Your task to perform on an android device: find snoozed emails in the gmail app Image 0: 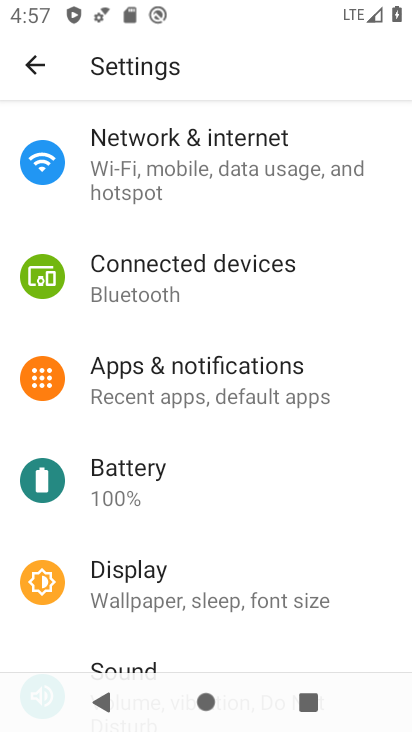
Step 0: press home button
Your task to perform on an android device: find snoozed emails in the gmail app Image 1: 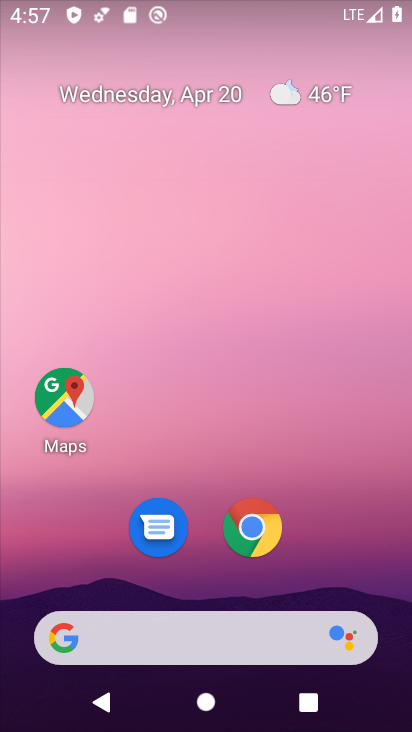
Step 1: drag from (216, 189) to (213, 94)
Your task to perform on an android device: find snoozed emails in the gmail app Image 2: 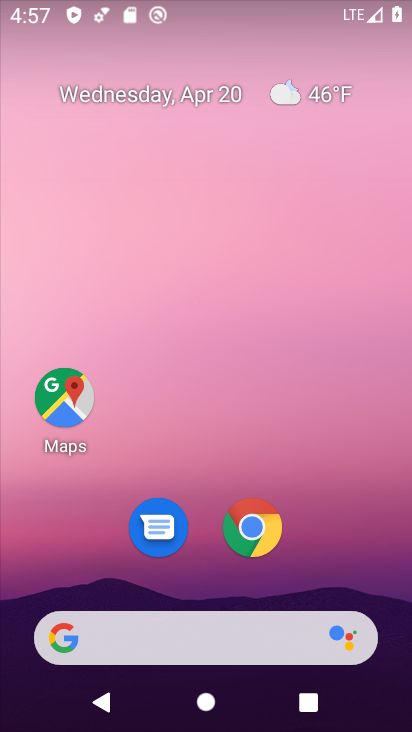
Step 2: drag from (214, 574) to (209, 57)
Your task to perform on an android device: find snoozed emails in the gmail app Image 3: 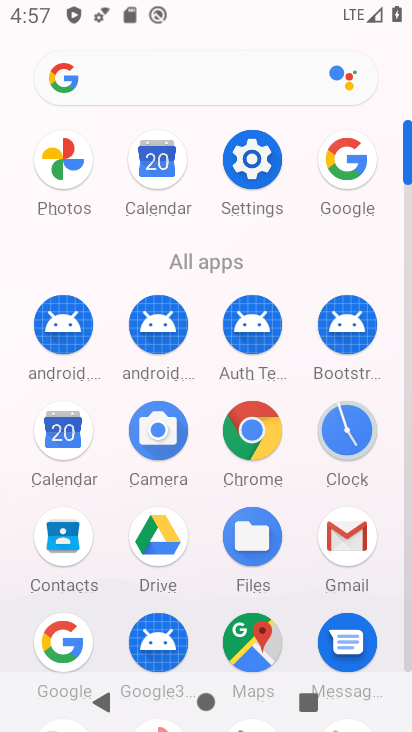
Step 3: click (345, 533)
Your task to perform on an android device: find snoozed emails in the gmail app Image 4: 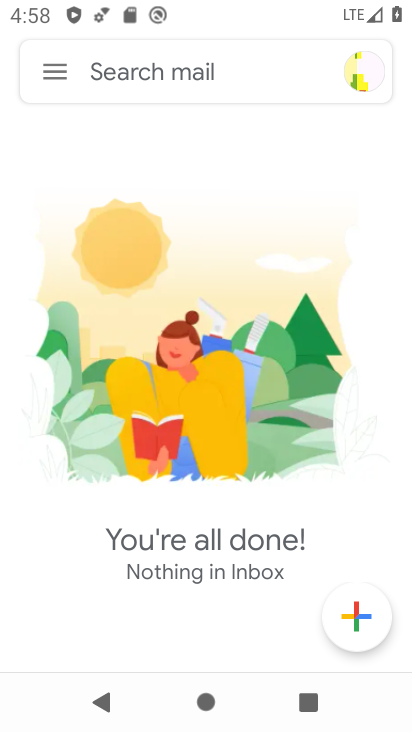
Step 4: click (49, 69)
Your task to perform on an android device: find snoozed emails in the gmail app Image 5: 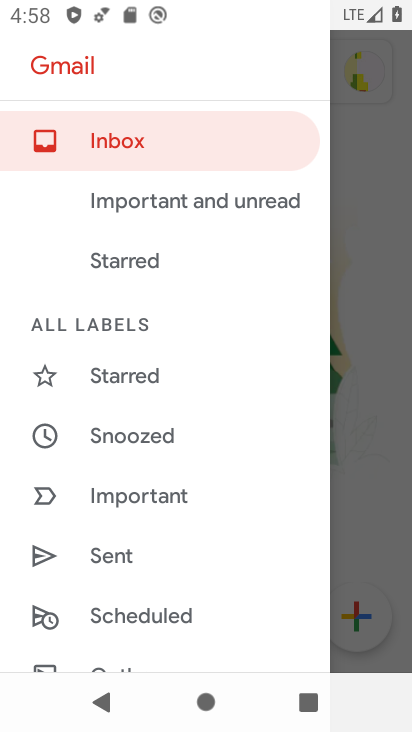
Step 5: click (161, 432)
Your task to perform on an android device: find snoozed emails in the gmail app Image 6: 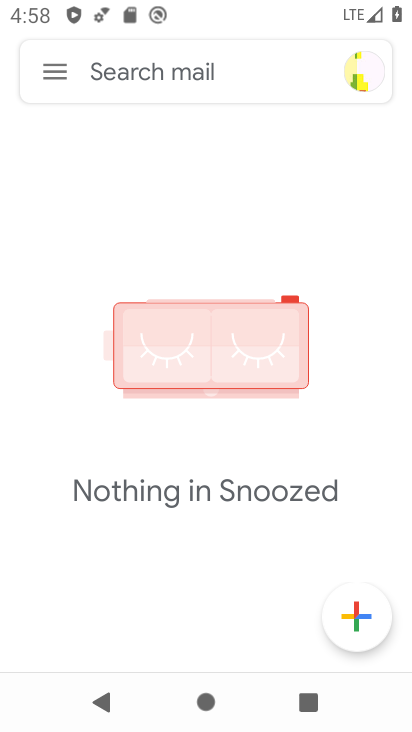
Step 6: task complete